Your task to perform on an android device: Open the Play Movies app and select the watchlist tab. Image 0: 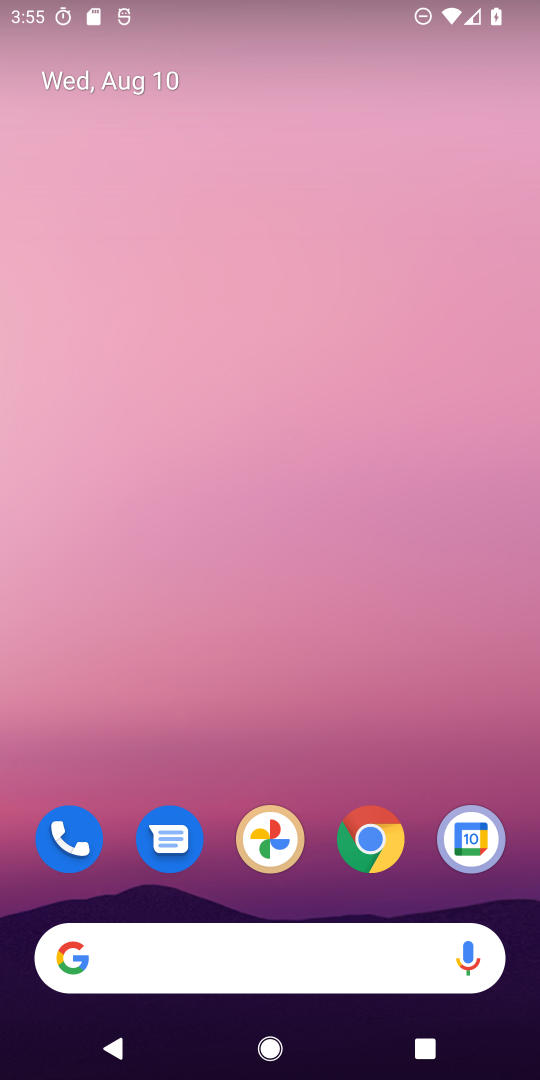
Step 0: drag from (45, 1047) to (282, 123)
Your task to perform on an android device: Open the Play Movies app and select the watchlist tab. Image 1: 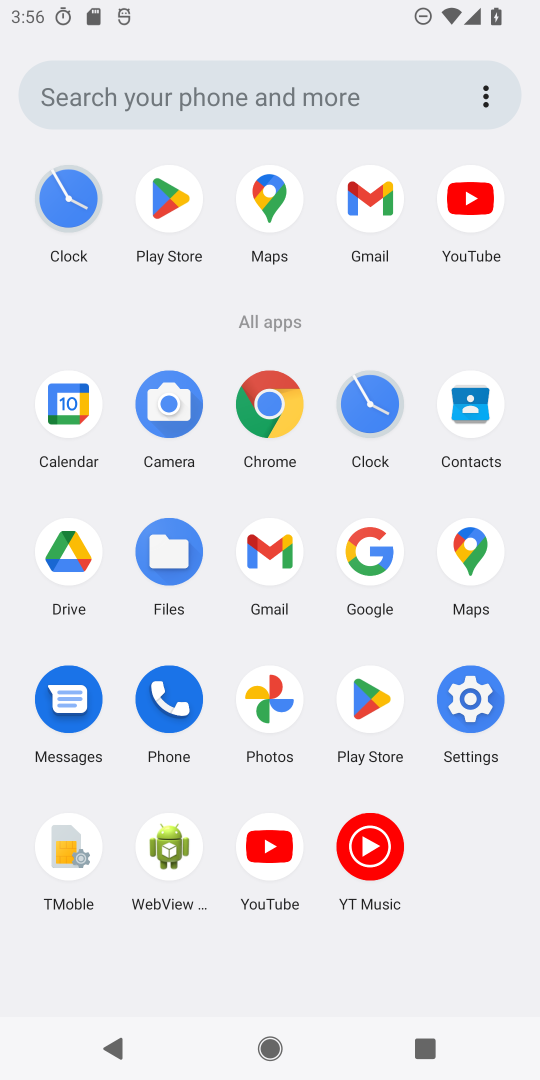
Step 1: task complete